Your task to perform on an android device: See recent photos Image 0: 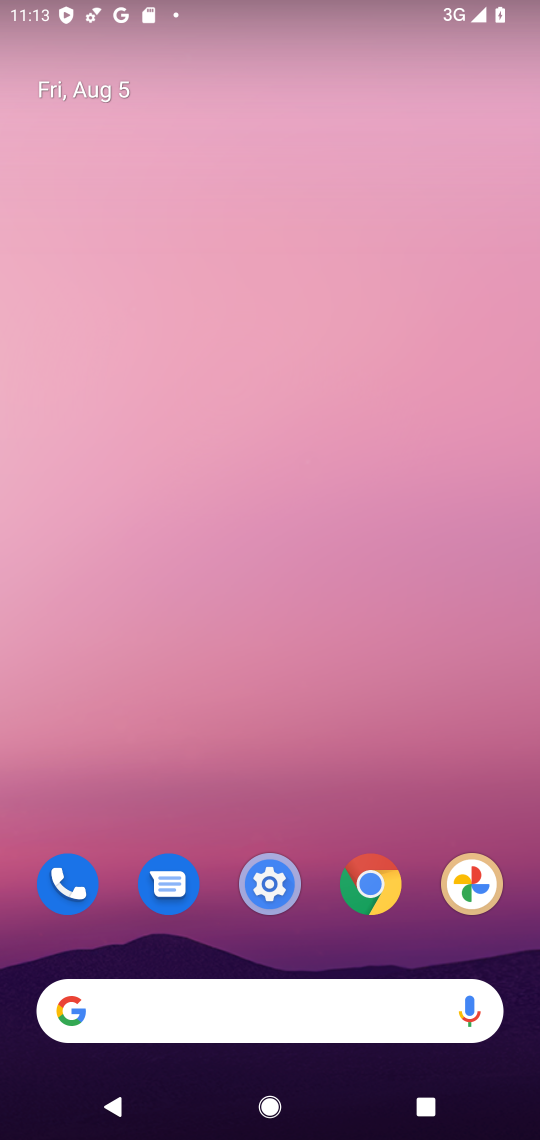
Step 0: click (480, 880)
Your task to perform on an android device: See recent photos Image 1: 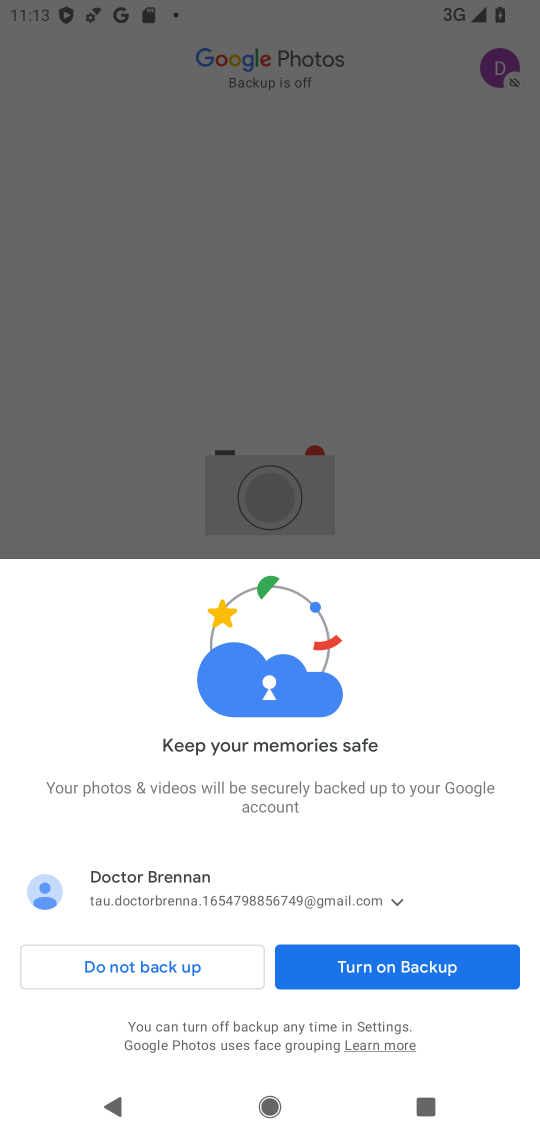
Step 1: click (370, 962)
Your task to perform on an android device: See recent photos Image 2: 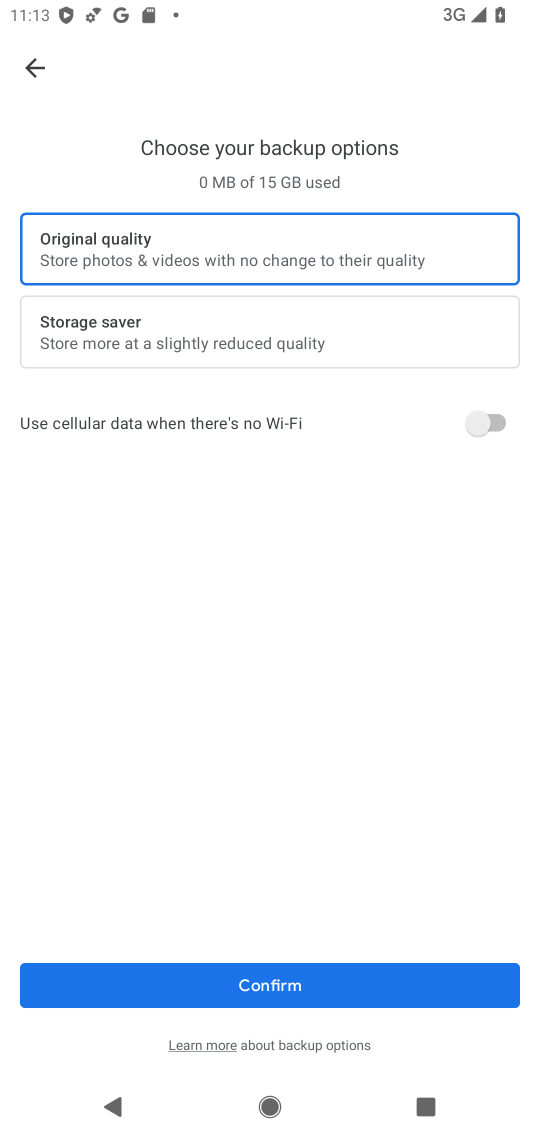
Step 2: click (383, 977)
Your task to perform on an android device: See recent photos Image 3: 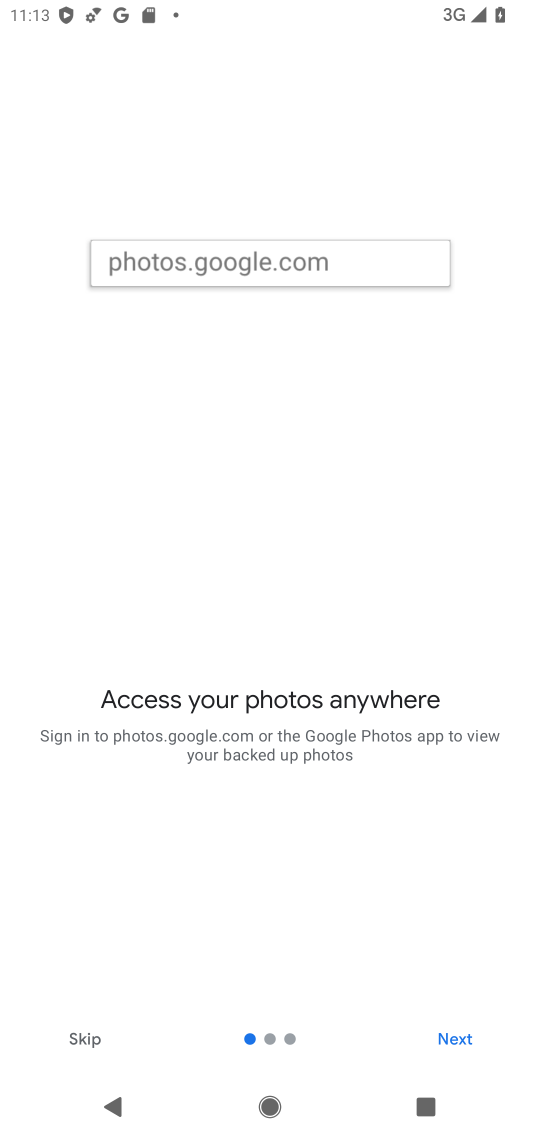
Step 3: click (83, 1043)
Your task to perform on an android device: See recent photos Image 4: 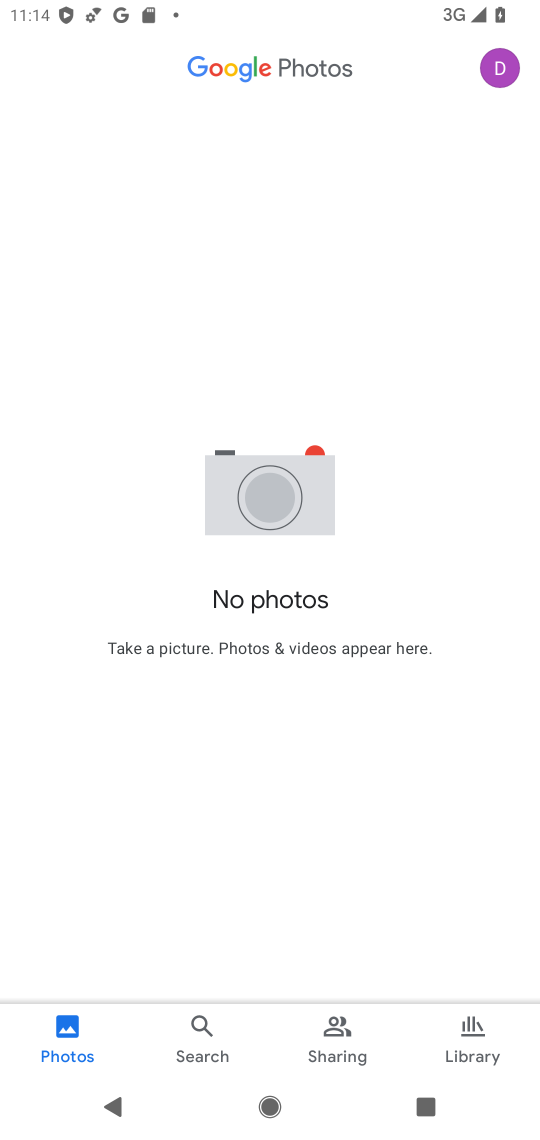
Step 4: task complete